Your task to perform on an android device: read, delete, or share a saved page in the chrome app Image 0: 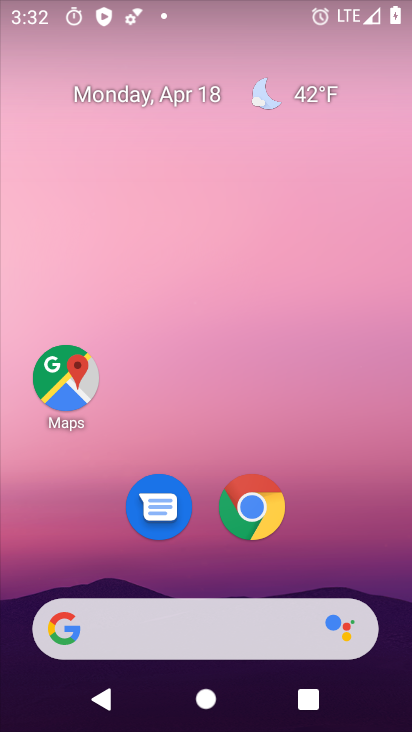
Step 0: drag from (346, 451) to (345, 93)
Your task to perform on an android device: read, delete, or share a saved page in the chrome app Image 1: 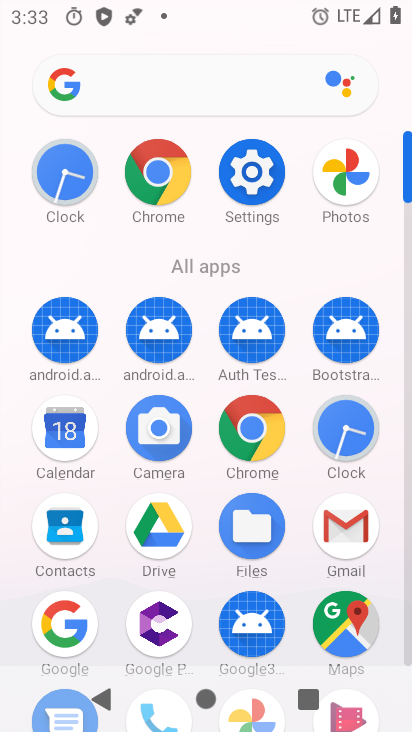
Step 1: click (274, 436)
Your task to perform on an android device: read, delete, or share a saved page in the chrome app Image 2: 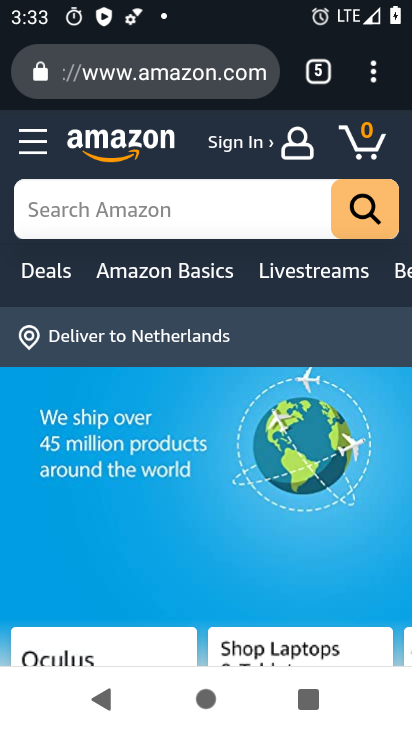
Step 2: click (366, 68)
Your task to perform on an android device: read, delete, or share a saved page in the chrome app Image 3: 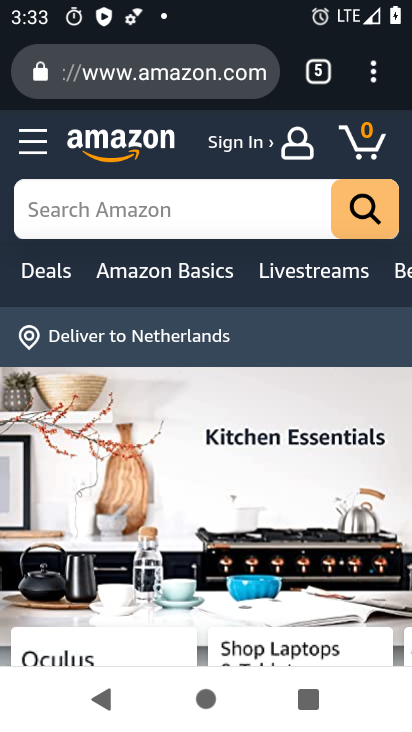
Step 3: click (388, 89)
Your task to perform on an android device: read, delete, or share a saved page in the chrome app Image 4: 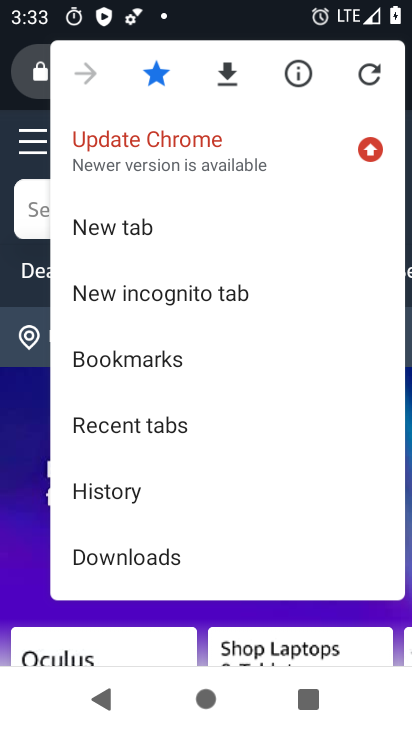
Step 4: click (134, 361)
Your task to perform on an android device: read, delete, or share a saved page in the chrome app Image 5: 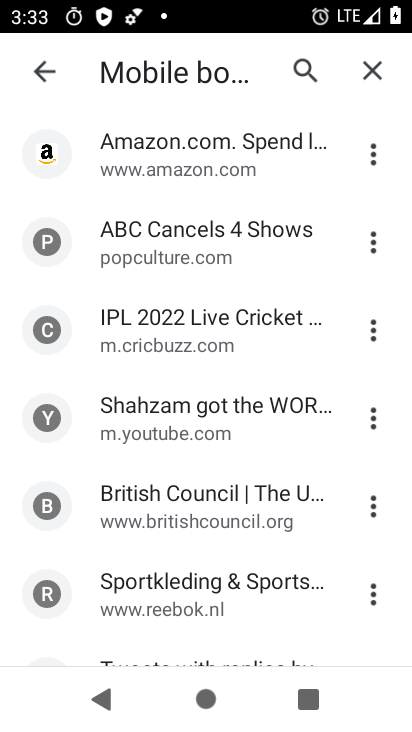
Step 5: click (375, 156)
Your task to perform on an android device: read, delete, or share a saved page in the chrome app Image 6: 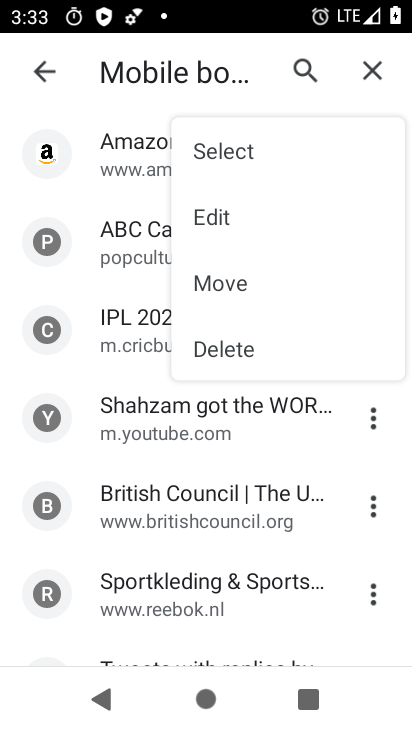
Step 6: click (234, 353)
Your task to perform on an android device: read, delete, or share a saved page in the chrome app Image 7: 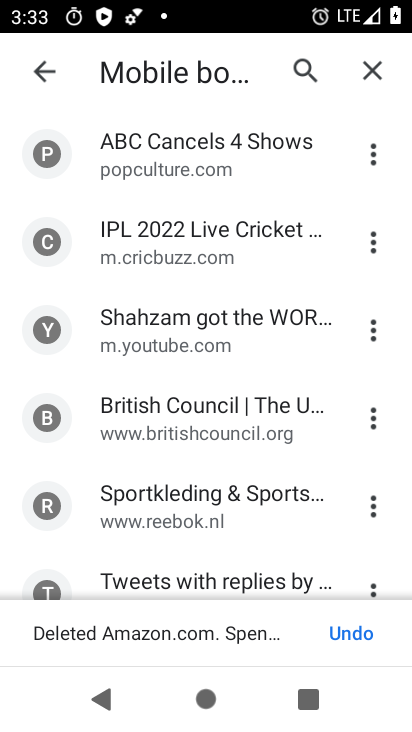
Step 7: task complete